Your task to perform on an android device: Go to Maps Image 0: 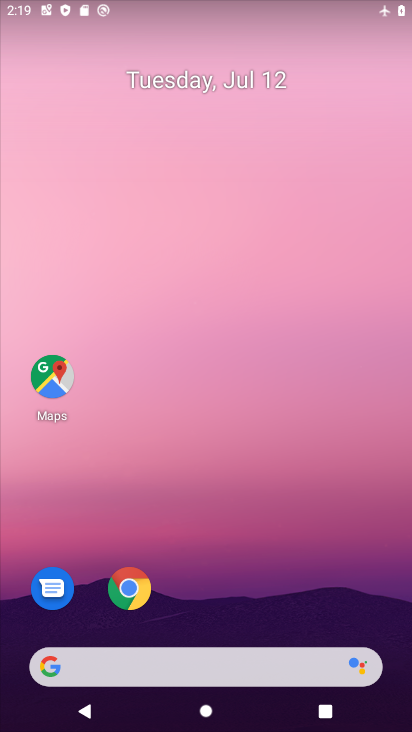
Step 0: click (46, 366)
Your task to perform on an android device: Go to Maps Image 1: 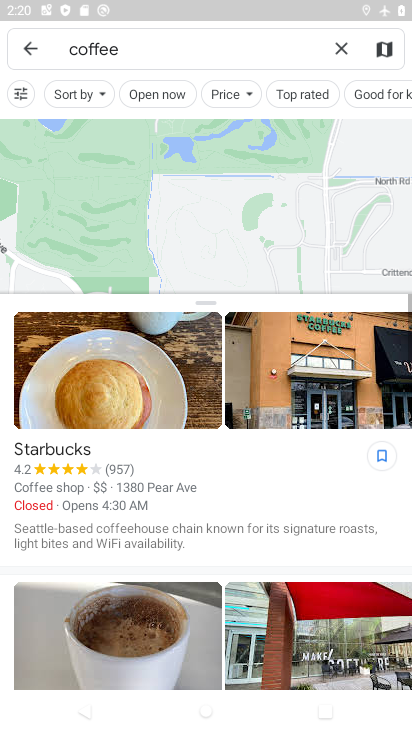
Step 1: task complete